Your task to perform on an android device: delete location history Image 0: 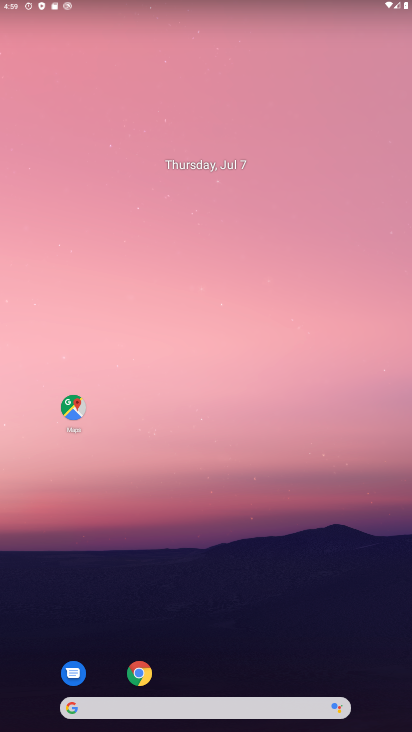
Step 0: drag from (278, 714) to (303, 183)
Your task to perform on an android device: delete location history Image 1: 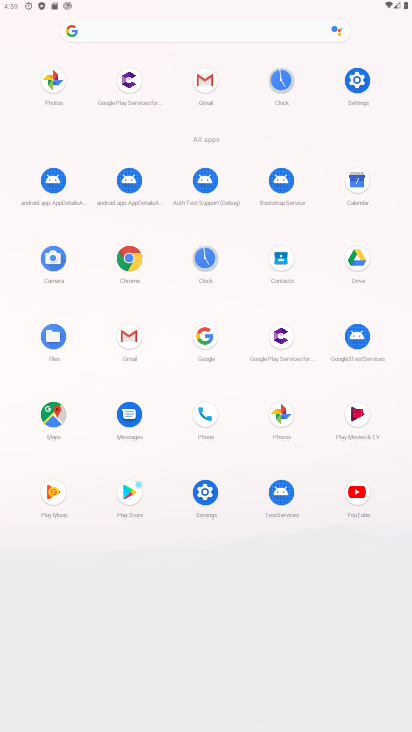
Step 1: click (369, 73)
Your task to perform on an android device: delete location history Image 2: 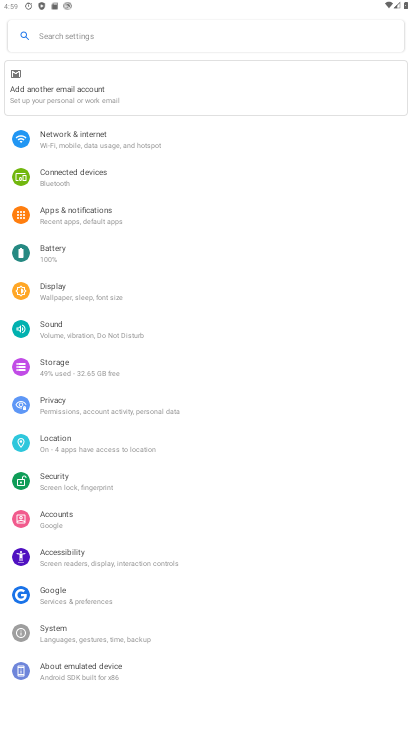
Step 2: press home button
Your task to perform on an android device: delete location history Image 3: 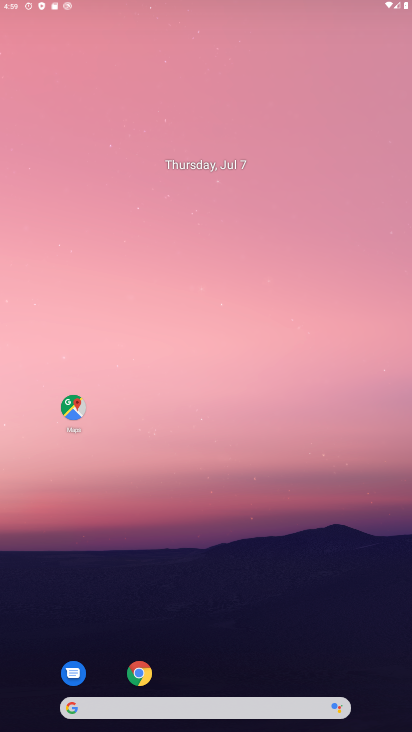
Step 3: drag from (284, 612) to (243, 86)
Your task to perform on an android device: delete location history Image 4: 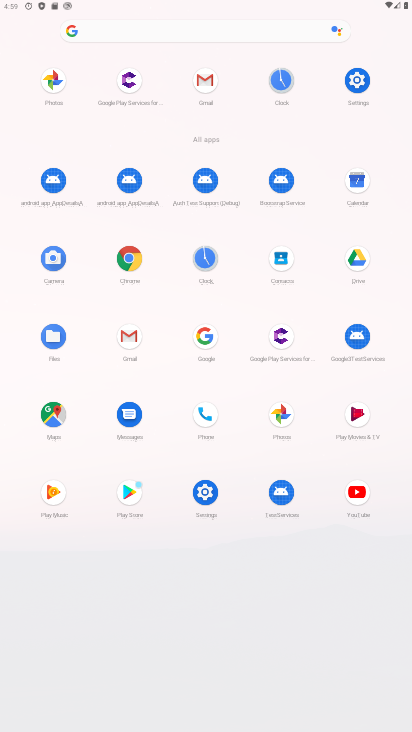
Step 4: click (50, 411)
Your task to perform on an android device: delete location history Image 5: 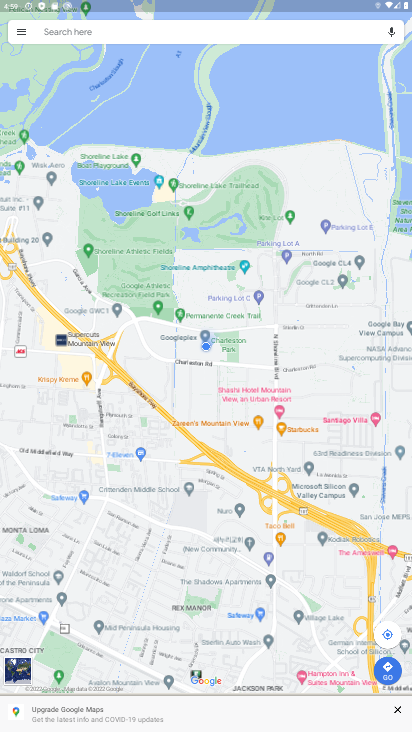
Step 5: click (22, 31)
Your task to perform on an android device: delete location history Image 6: 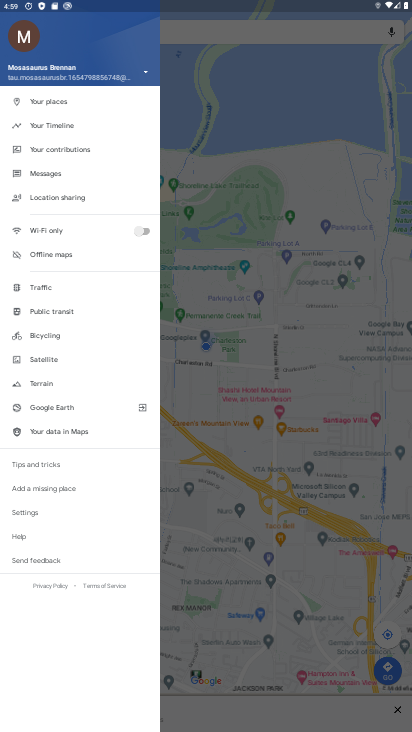
Step 6: click (59, 128)
Your task to perform on an android device: delete location history Image 7: 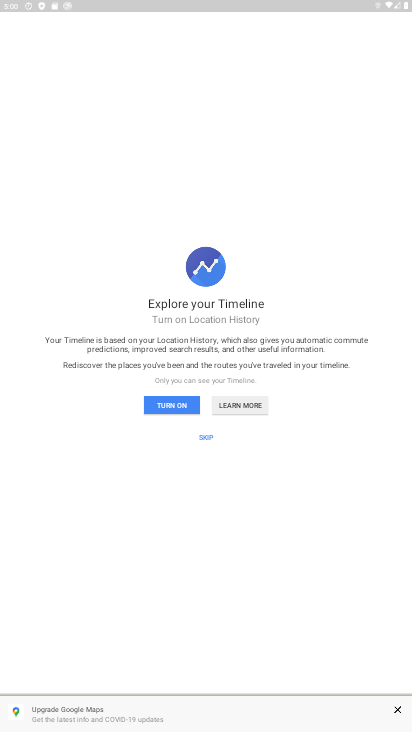
Step 7: click (205, 438)
Your task to perform on an android device: delete location history Image 8: 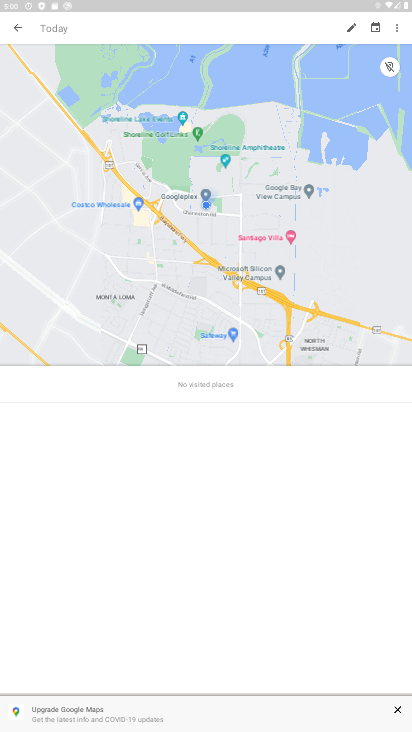
Step 8: click (399, 26)
Your task to perform on an android device: delete location history Image 9: 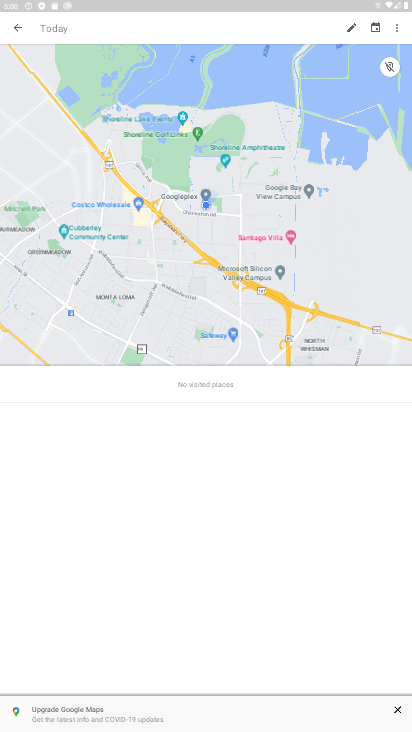
Step 9: click (389, 30)
Your task to perform on an android device: delete location history Image 10: 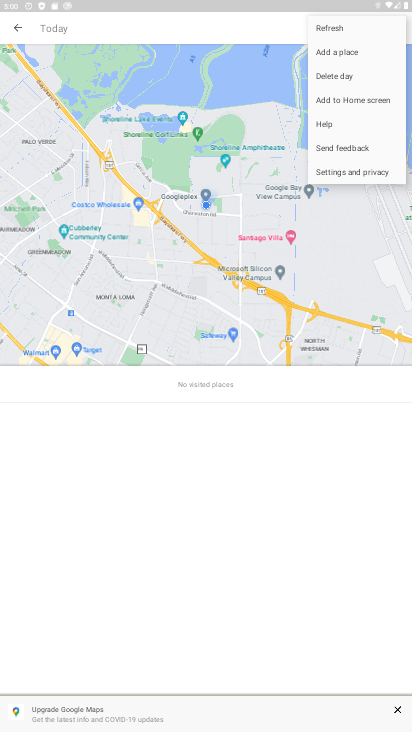
Step 10: click (361, 166)
Your task to perform on an android device: delete location history Image 11: 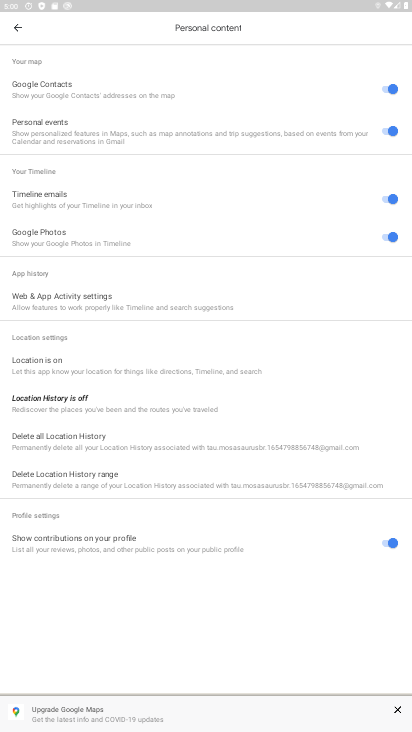
Step 11: click (76, 444)
Your task to perform on an android device: delete location history Image 12: 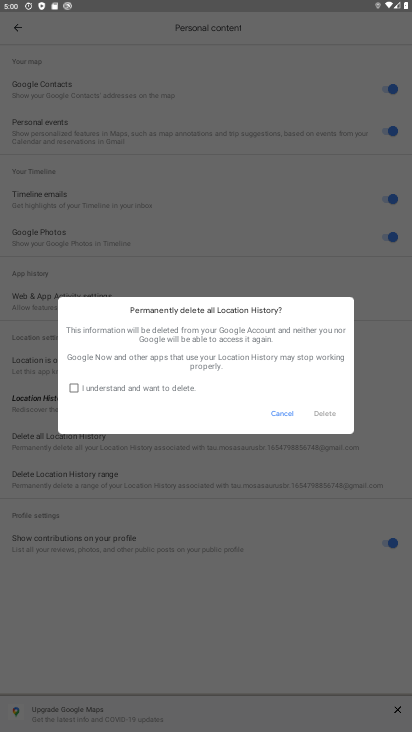
Step 12: click (70, 385)
Your task to perform on an android device: delete location history Image 13: 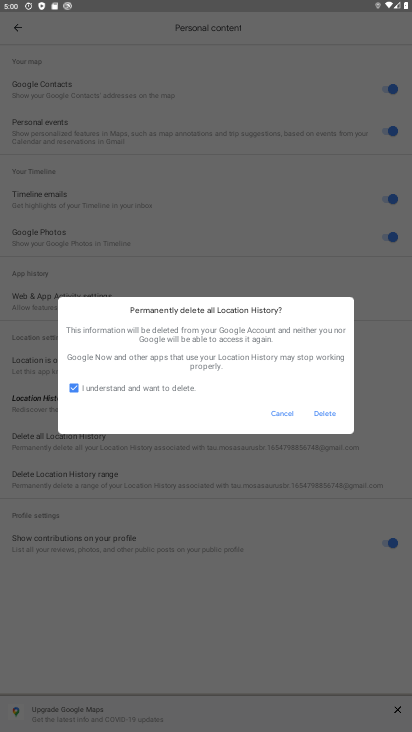
Step 13: click (319, 419)
Your task to perform on an android device: delete location history Image 14: 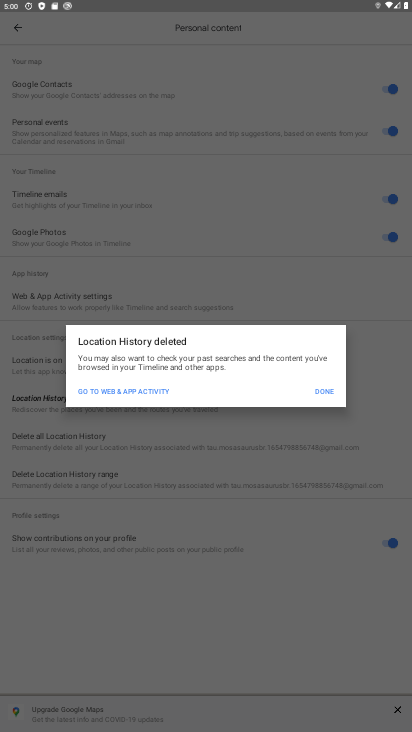
Step 14: click (329, 388)
Your task to perform on an android device: delete location history Image 15: 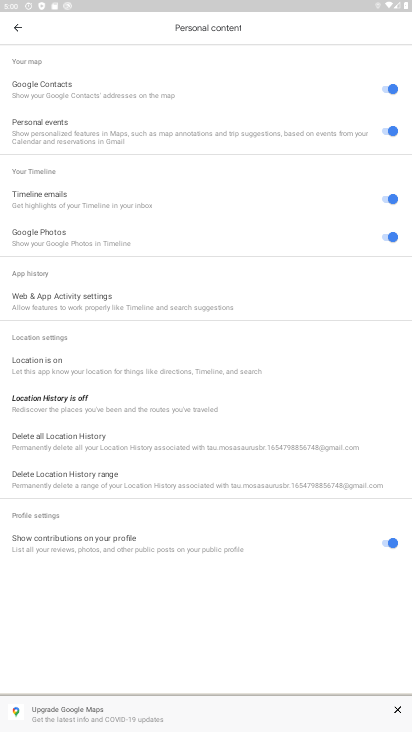
Step 15: task complete